Your task to perform on an android device: turn on javascript in the chrome app Image 0: 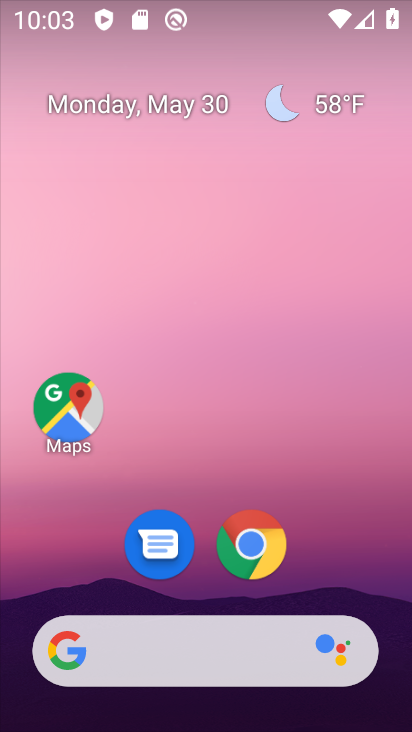
Step 0: click (261, 529)
Your task to perform on an android device: turn on javascript in the chrome app Image 1: 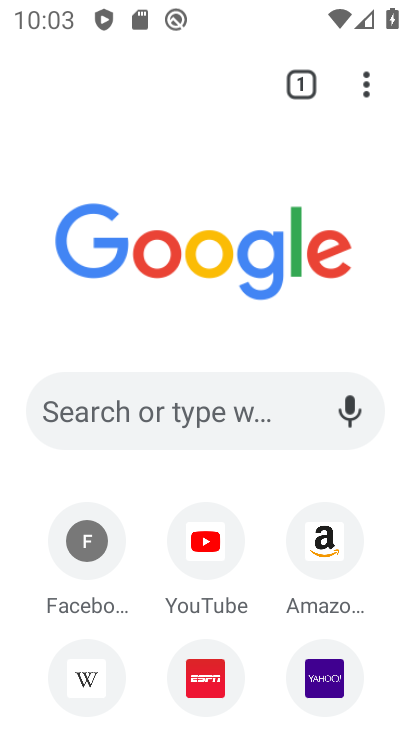
Step 1: click (376, 76)
Your task to perform on an android device: turn on javascript in the chrome app Image 2: 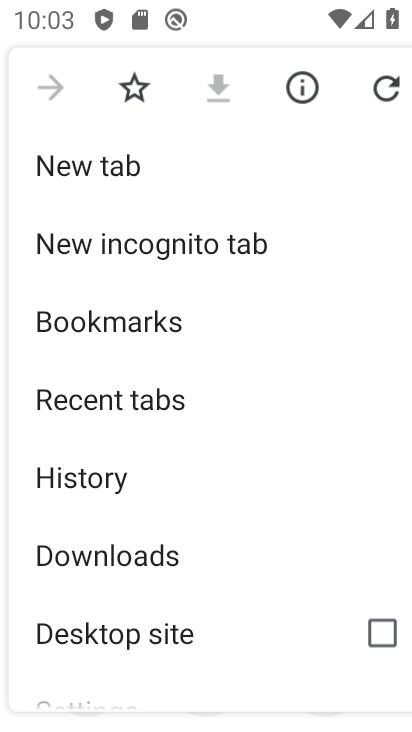
Step 2: drag from (147, 612) to (145, 432)
Your task to perform on an android device: turn on javascript in the chrome app Image 3: 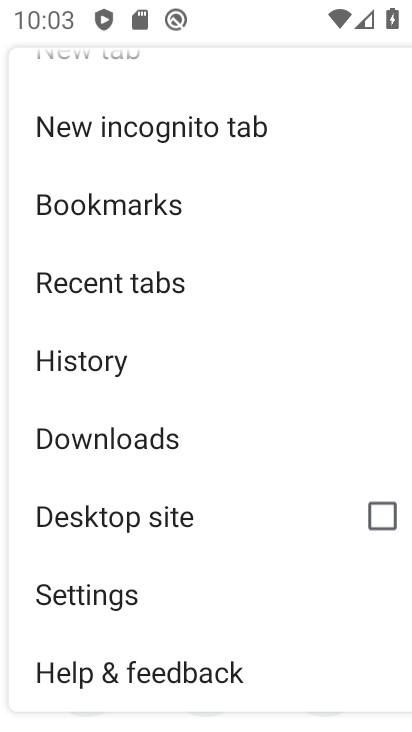
Step 3: click (88, 623)
Your task to perform on an android device: turn on javascript in the chrome app Image 4: 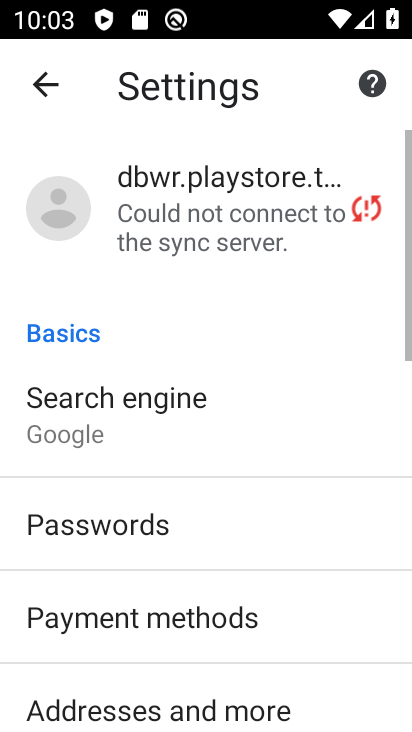
Step 4: drag from (230, 584) to (208, 267)
Your task to perform on an android device: turn on javascript in the chrome app Image 5: 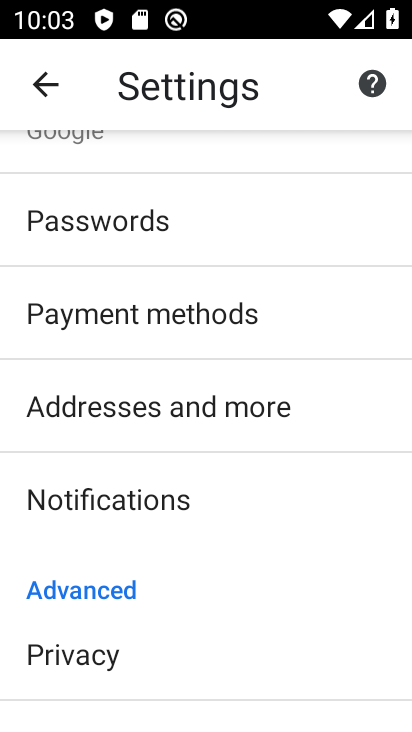
Step 5: drag from (239, 673) to (226, 379)
Your task to perform on an android device: turn on javascript in the chrome app Image 6: 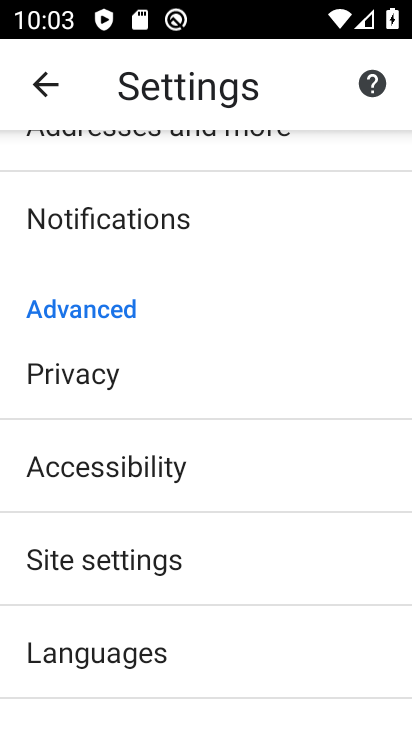
Step 6: click (181, 588)
Your task to perform on an android device: turn on javascript in the chrome app Image 7: 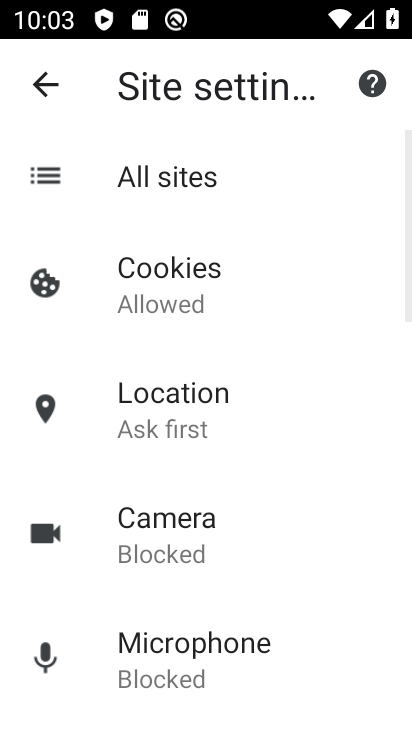
Step 7: drag from (213, 617) to (186, 200)
Your task to perform on an android device: turn on javascript in the chrome app Image 8: 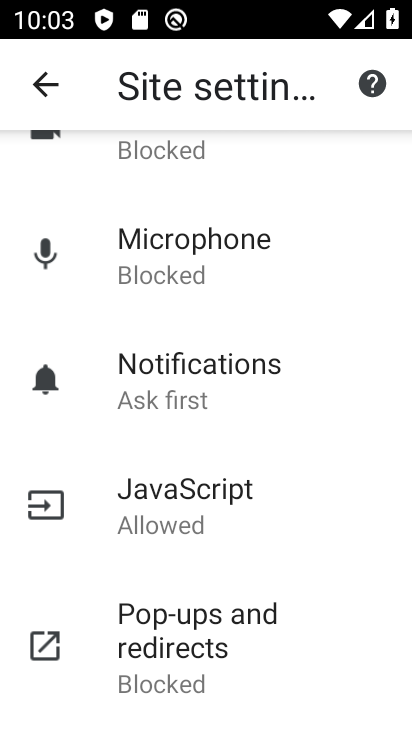
Step 8: click (228, 518)
Your task to perform on an android device: turn on javascript in the chrome app Image 9: 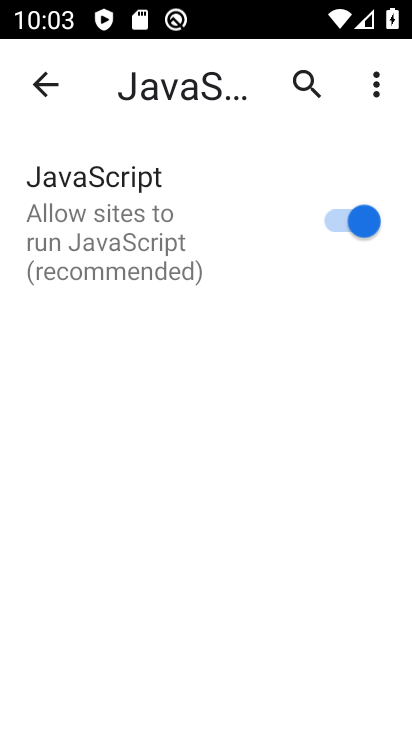
Step 9: click (329, 231)
Your task to perform on an android device: turn on javascript in the chrome app Image 10: 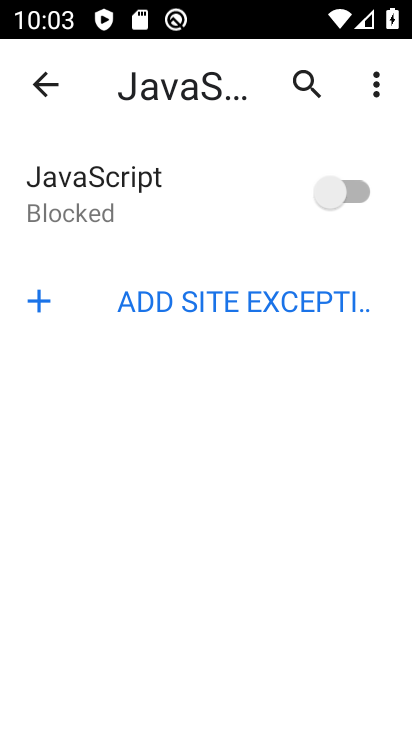
Step 10: task complete